Your task to perform on an android device: open app "Move to iOS" (install if not already installed) and enter user name: "Decca@icloud.com" and password: "reabbreviate" Image 0: 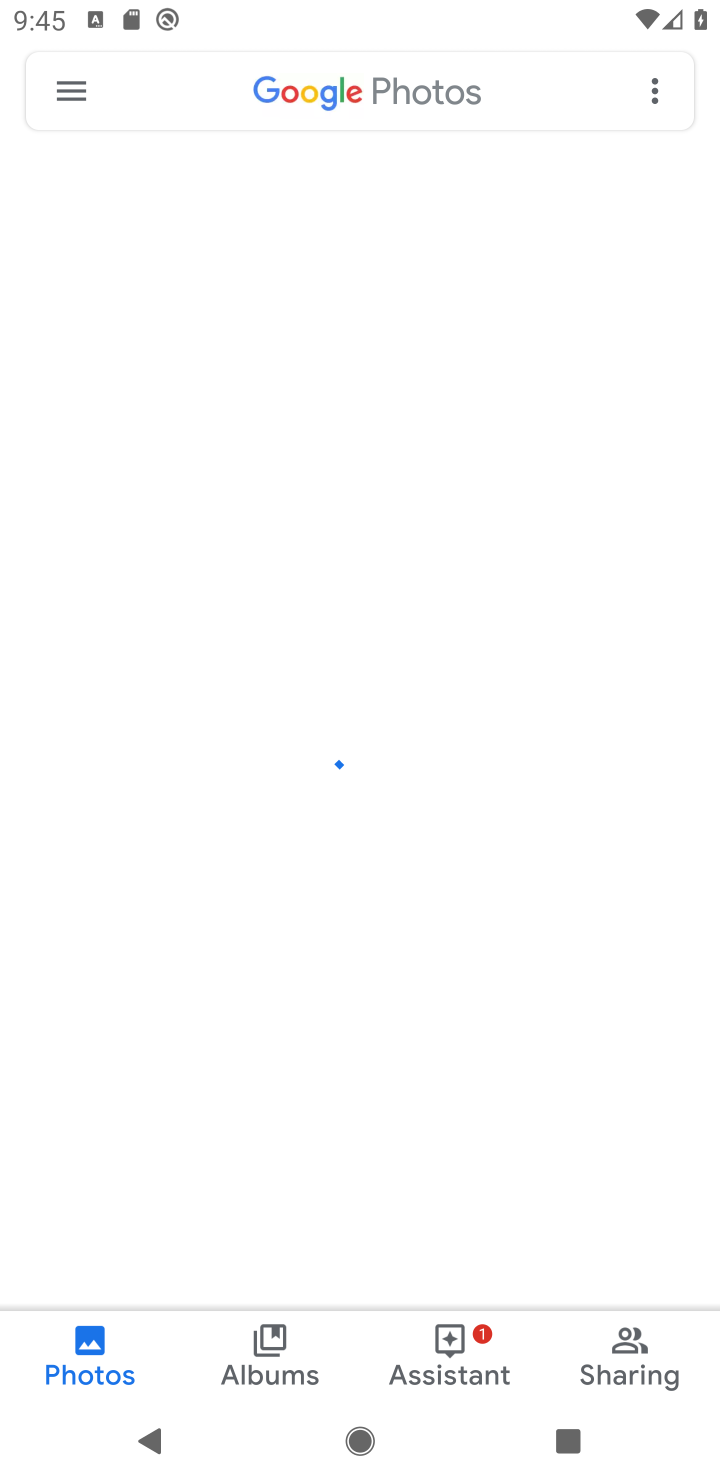
Step 0: press back button
Your task to perform on an android device: open app "Move to iOS" (install if not already installed) and enter user name: "Decca@icloud.com" and password: "reabbreviate" Image 1: 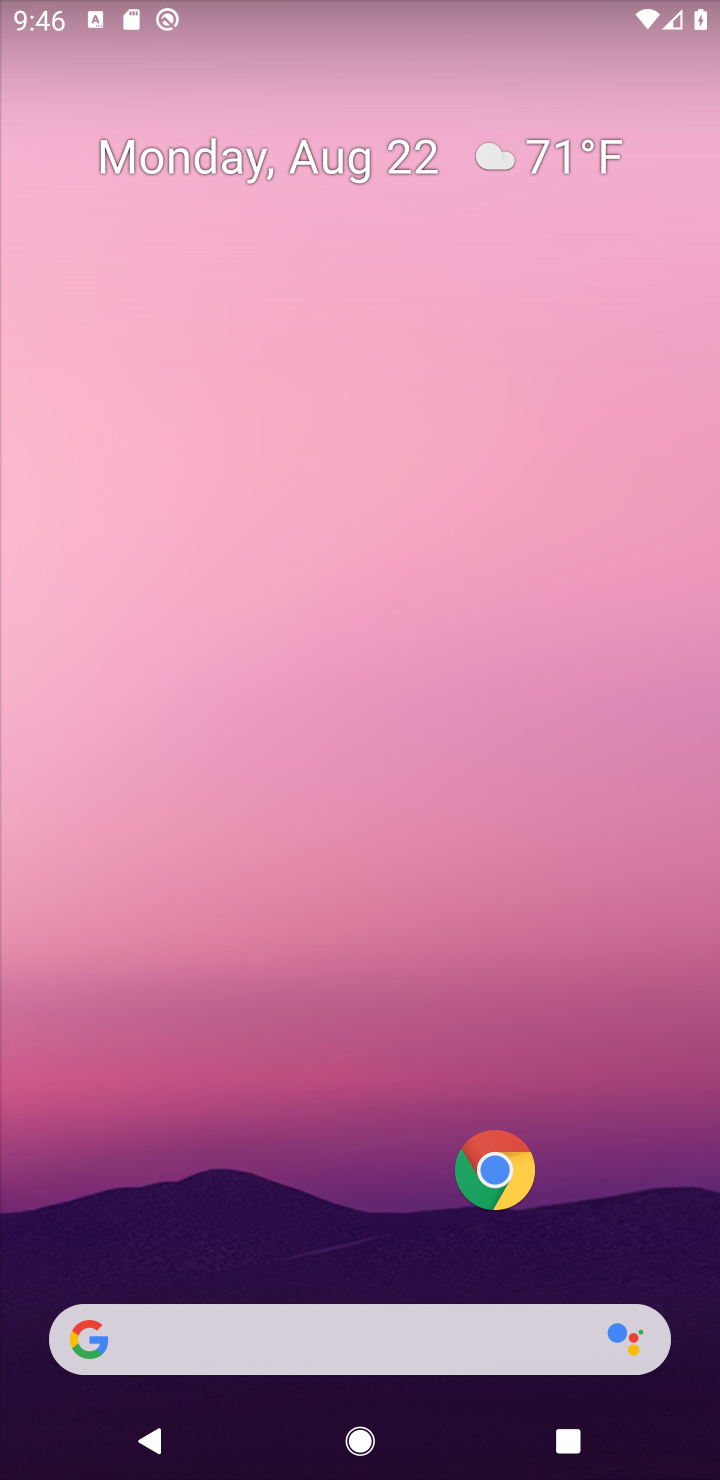
Step 1: drag from (295, 964) to (391, 201)
Your task to perform on an android device: open app "Move to iOS" (install if not already installed) and enter user name: "Decca@icloud.com" and password: "reabbreviate" Image 2: 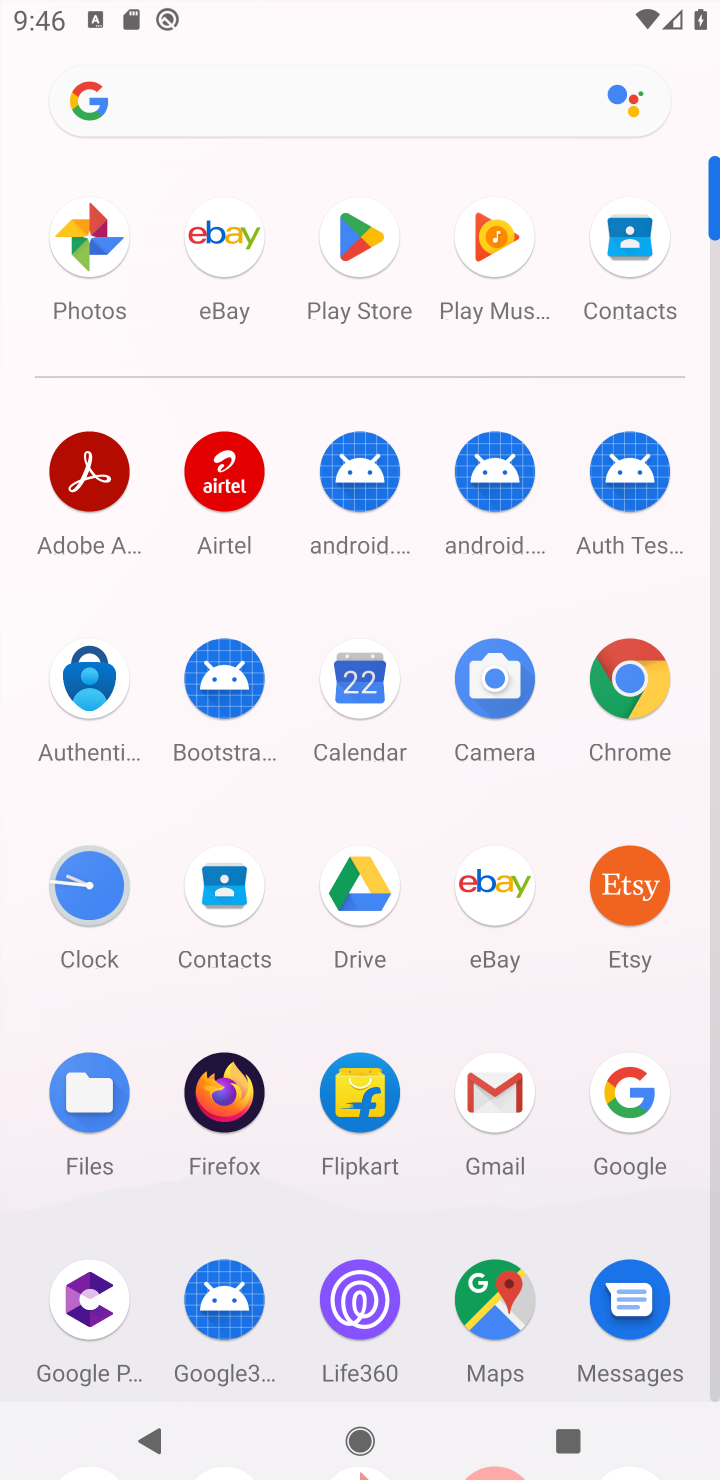
Step 2: click (367, 237)
Your task to perform on an android device: open app "Move to iOS" (install if not already installed) and enter user name: "Decca@icloud.com" and password: "reabbreviate" Image 3: 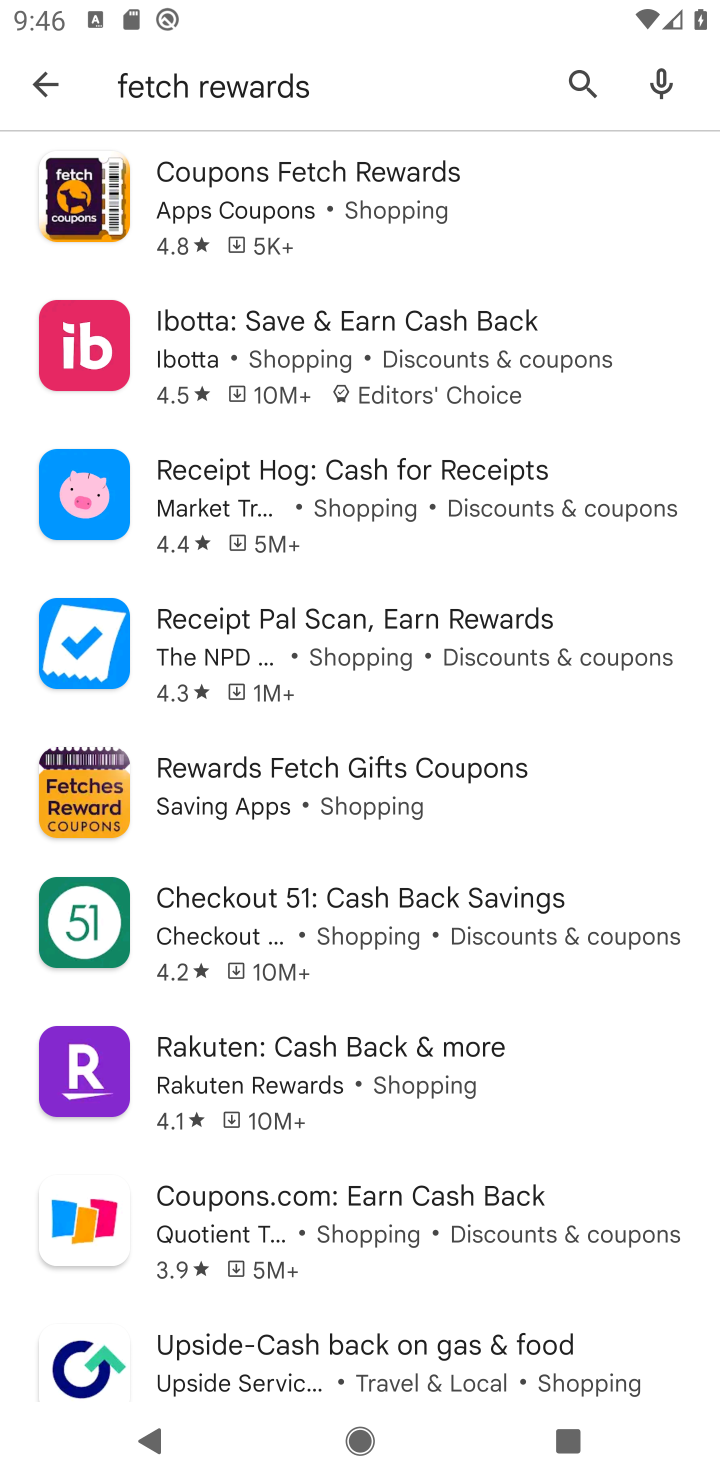
Step 3: click (576, 75)
Your task to perform on an android device: open app "Move to iOS" (install if not already installed) and enter user name: "Decca@icloud.com" and password: "reabbreviate" Image 4: 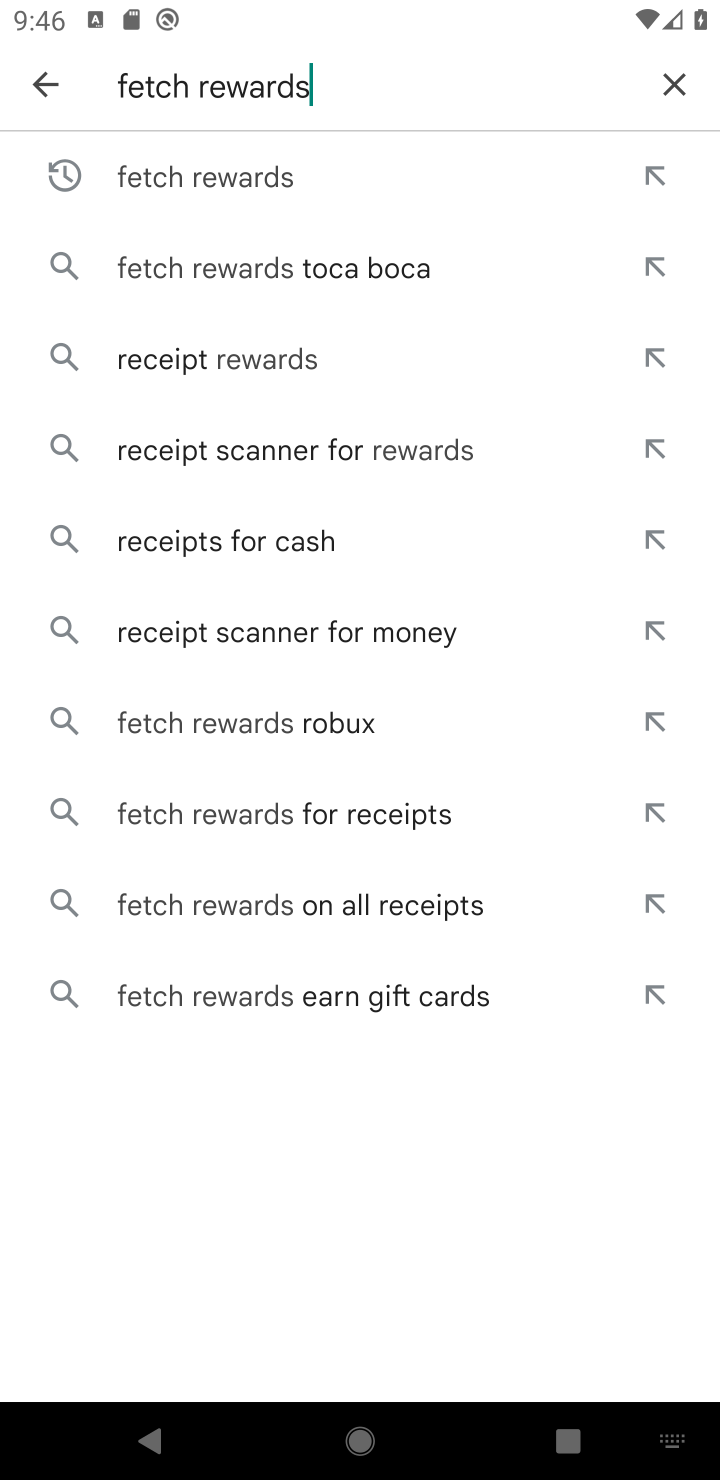
Step 4: click (680, 78)
Your task to perform on an android device: open app "Move to iOS" (install if not already installed) and enter user name: "Decca@icloud.com" and password: "reabbreviate" Image 5: 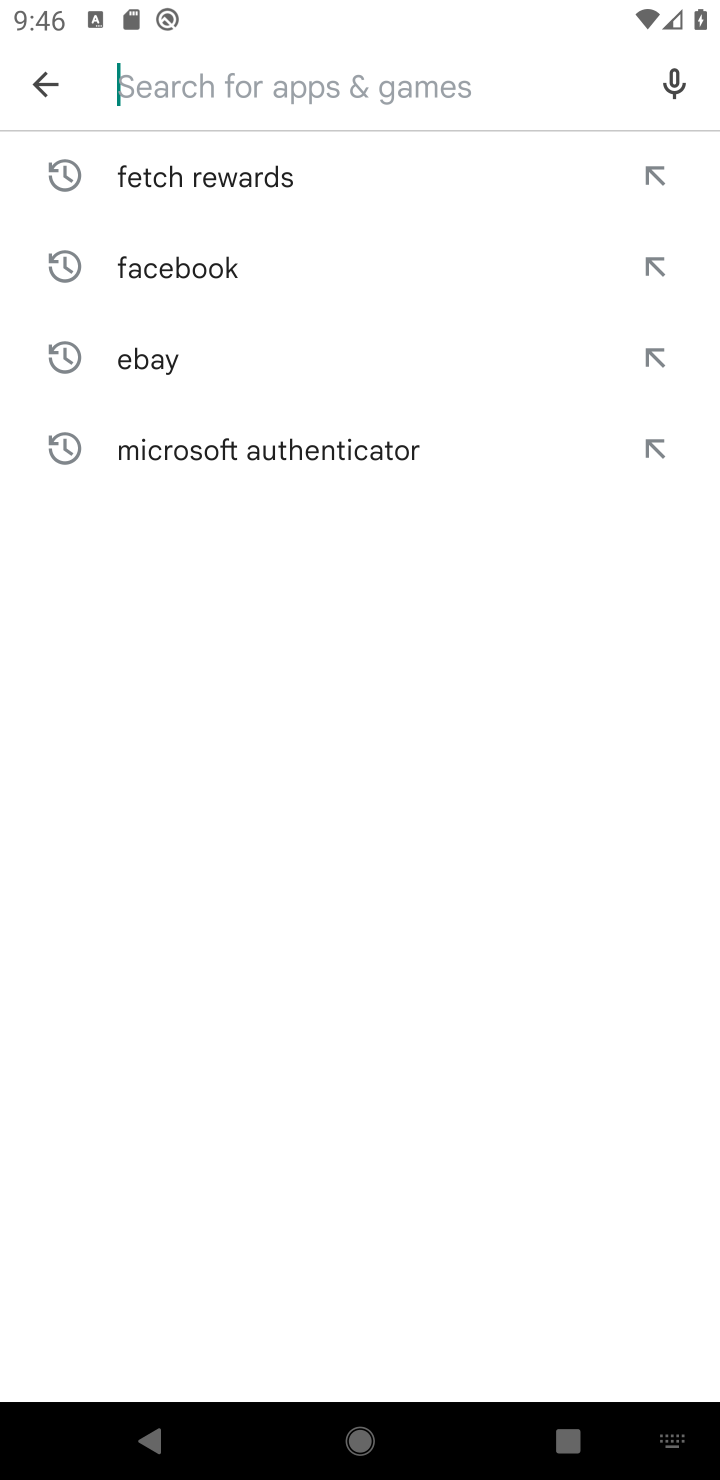
Step 5: click (297, 81)
Your task to perform on an android device: open app "Move to iOS" (install if not already installed) and enter user name: "Decca@icloud.com" and password: "reabbreviate" Image 6: 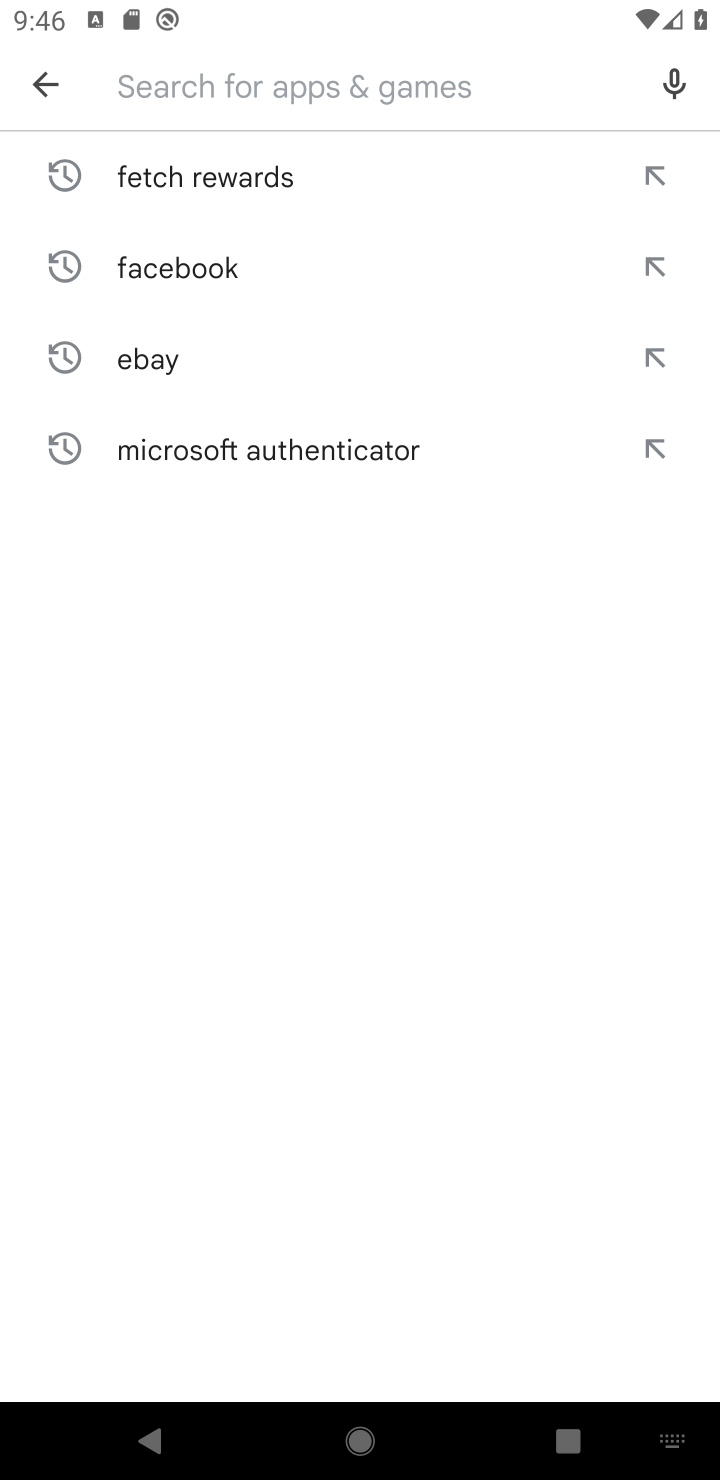
Step 6: type "ios"
Your task to perform on an android device: open app "Move to iOS" (install if not already installed) and enter user name: "Decca@icloud.com" and password: "reabbreviate" Image 7: 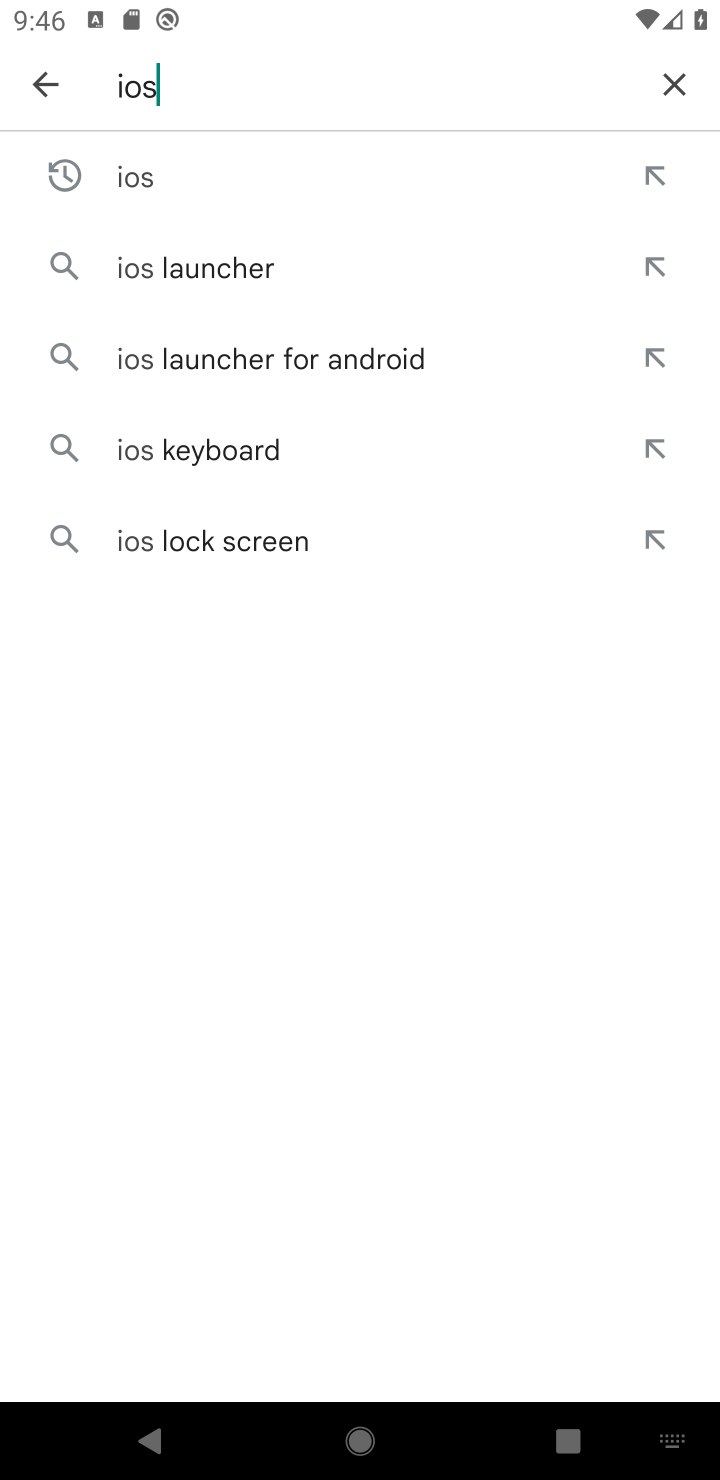
Step 7: click (154, 175)
Your task to perform on an android device: open app "Move to iOS" (install if not already installed) and enter user name: "Decca@icloud.com" and password: "reabbreviate" Image 8: 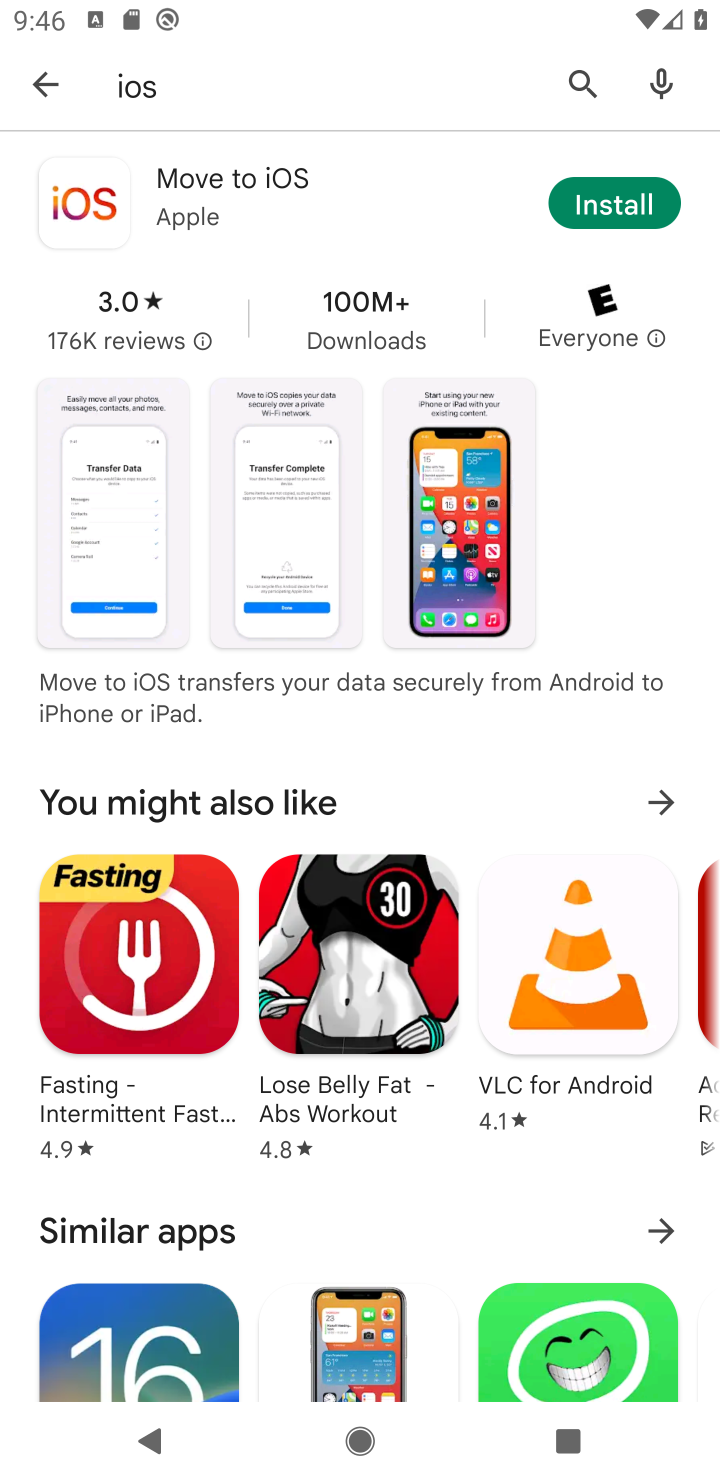
Step 8: click (599, 206)
Your task to perform on an android device: open app "Move to iOS" (install if not already installed) and enter user name: "Decca@icloud.com" and password: "reabbreviate" Image 9: 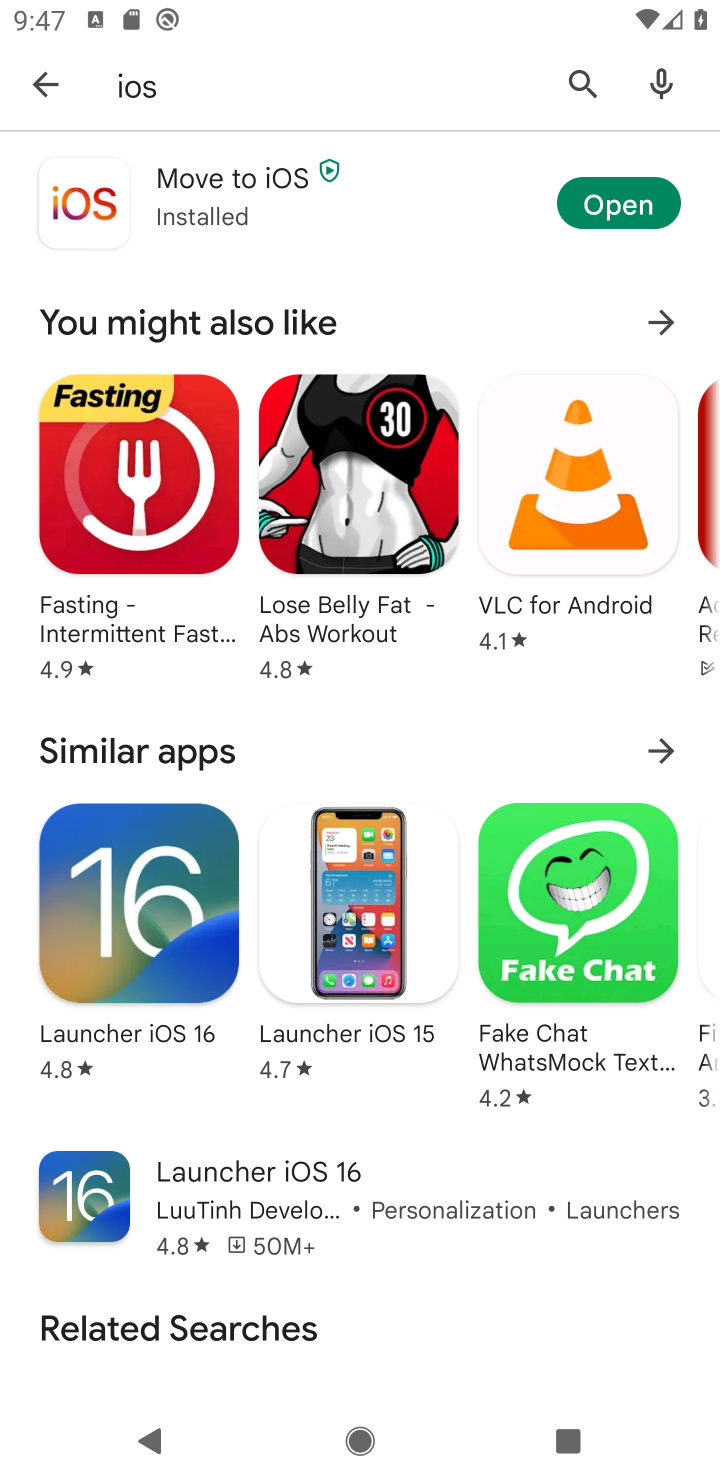
Step 9: click (594, 205)
Your task to perform on an android device: open app "Move to iOS" (install if not already installed) and enter user name: "Decca@icloud.com" and password: "reabbreviate" Image 10: 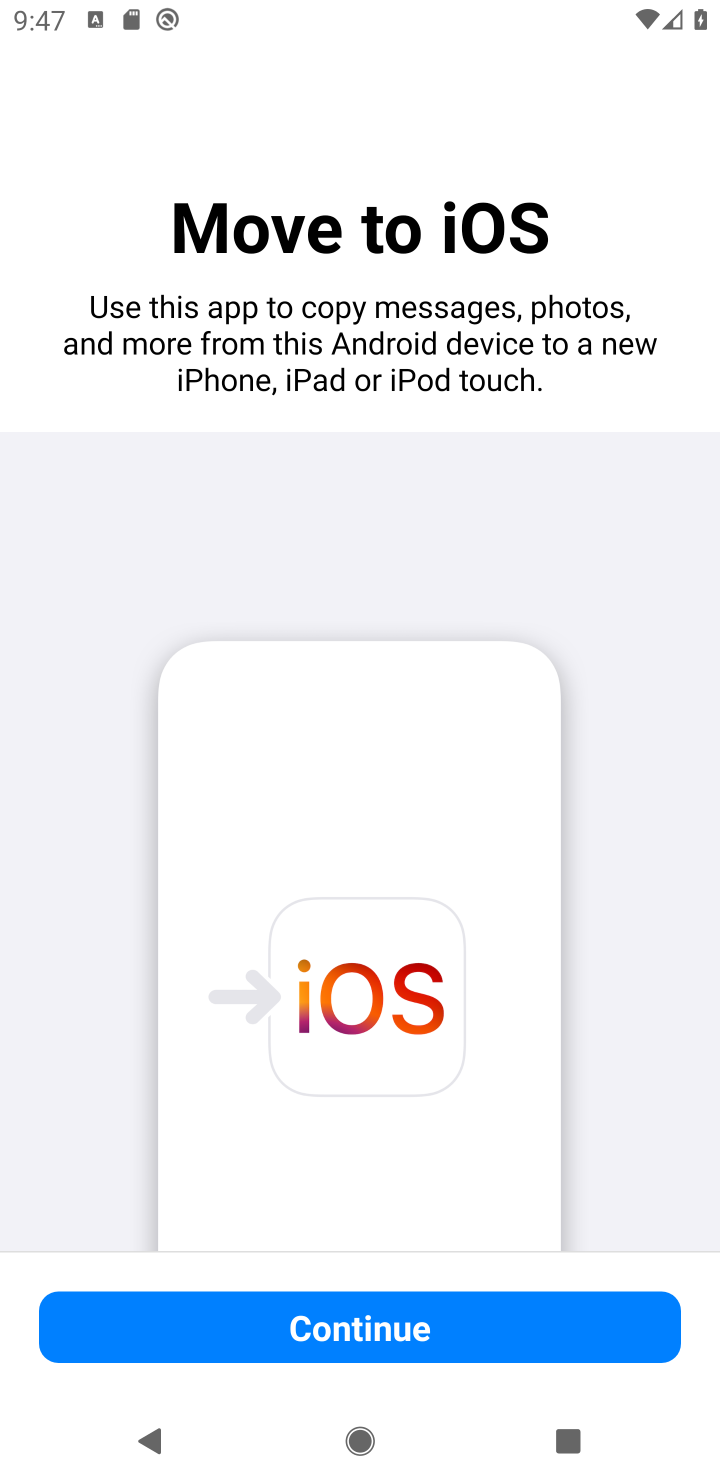
Step 10: click (457, 1347)
Your task to perform on an android device: open app "Move to iOS" (install if not already installed) and enter user name: "Decca@icloud.com" and password: "reabbreviate" Image 11: 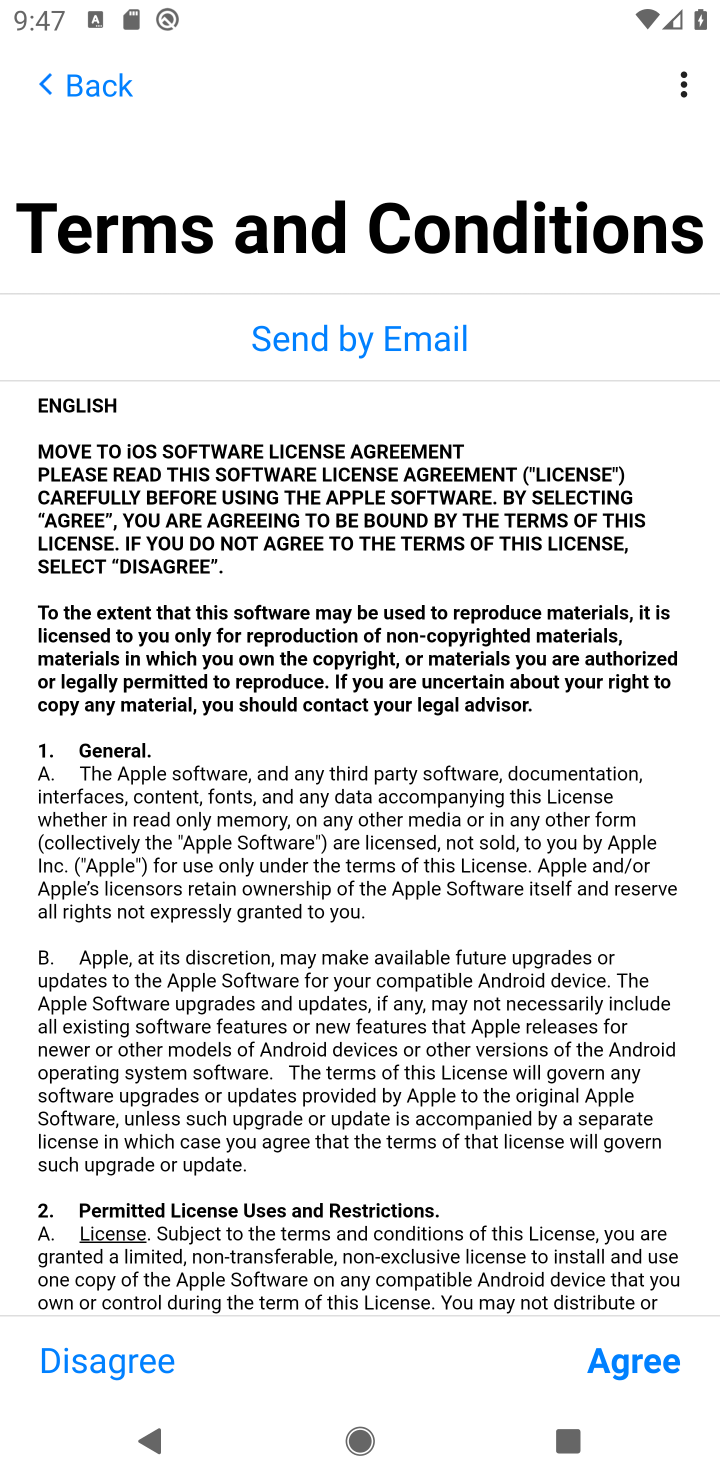
Step 11: click (645, 1369)
Your task to perform on an android device: open app "Move to iOS" (install if not already installed) and enter user name: "Decca@icloud.com" and password: "reabbreviate" Image 12: 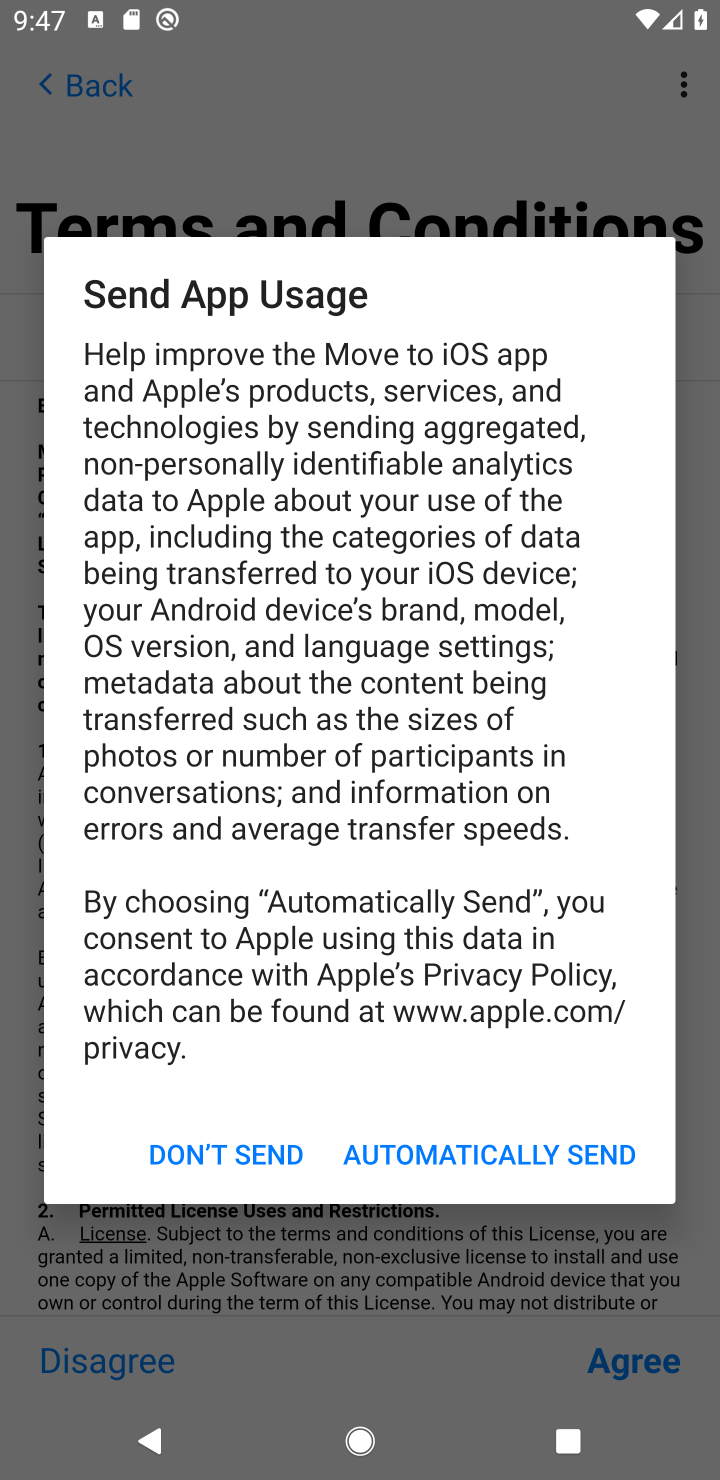
Step 12: click (209, 1156)
Your task to perform on an android device: open app "Move to iOS" (install if not already installed) and enter user name: "Decca@icloud.com" and password: "reabbreviate" Image 13: 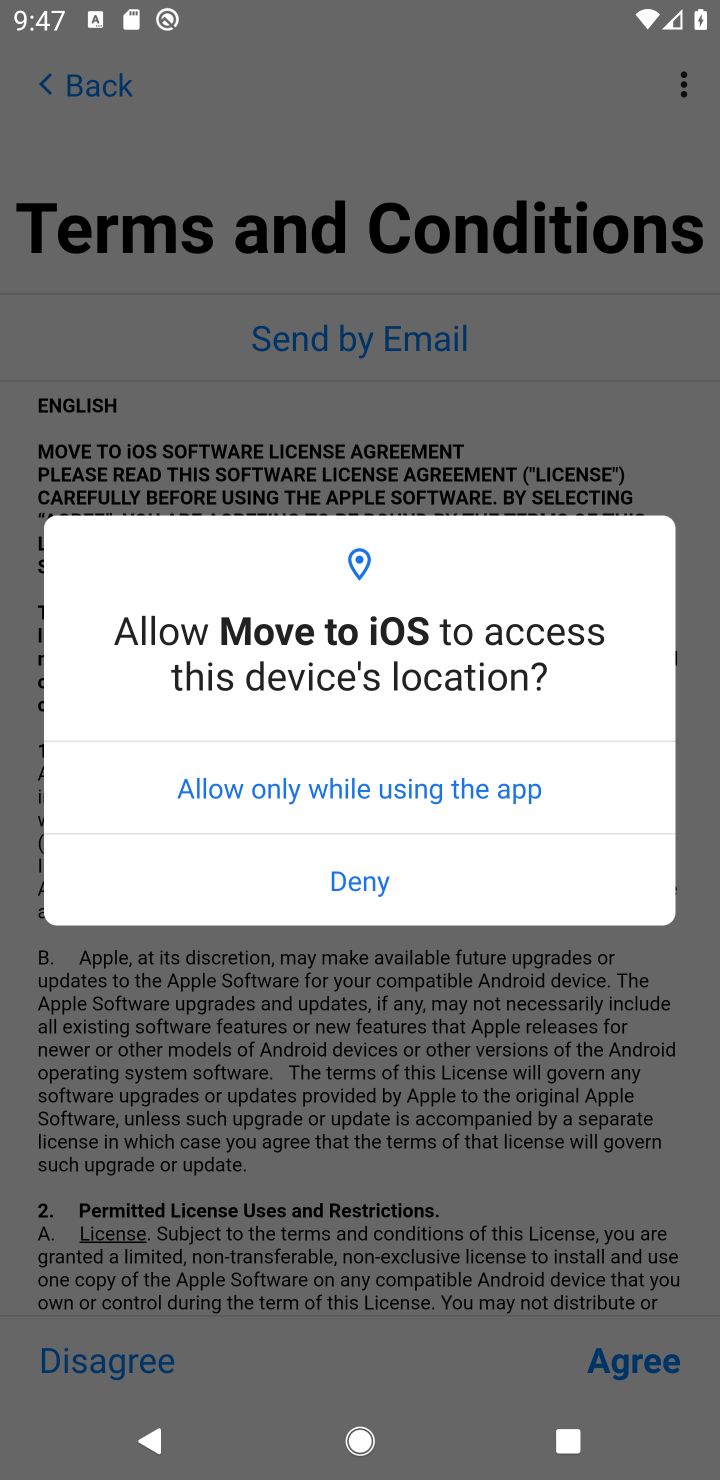
Step 13: click (298, 762)
Your task to perform on an android device: open app "Move to iOS" (install if not already installed) and enter user name: "Decca@icloud.com" and password: "reabbreviate" Image 14: 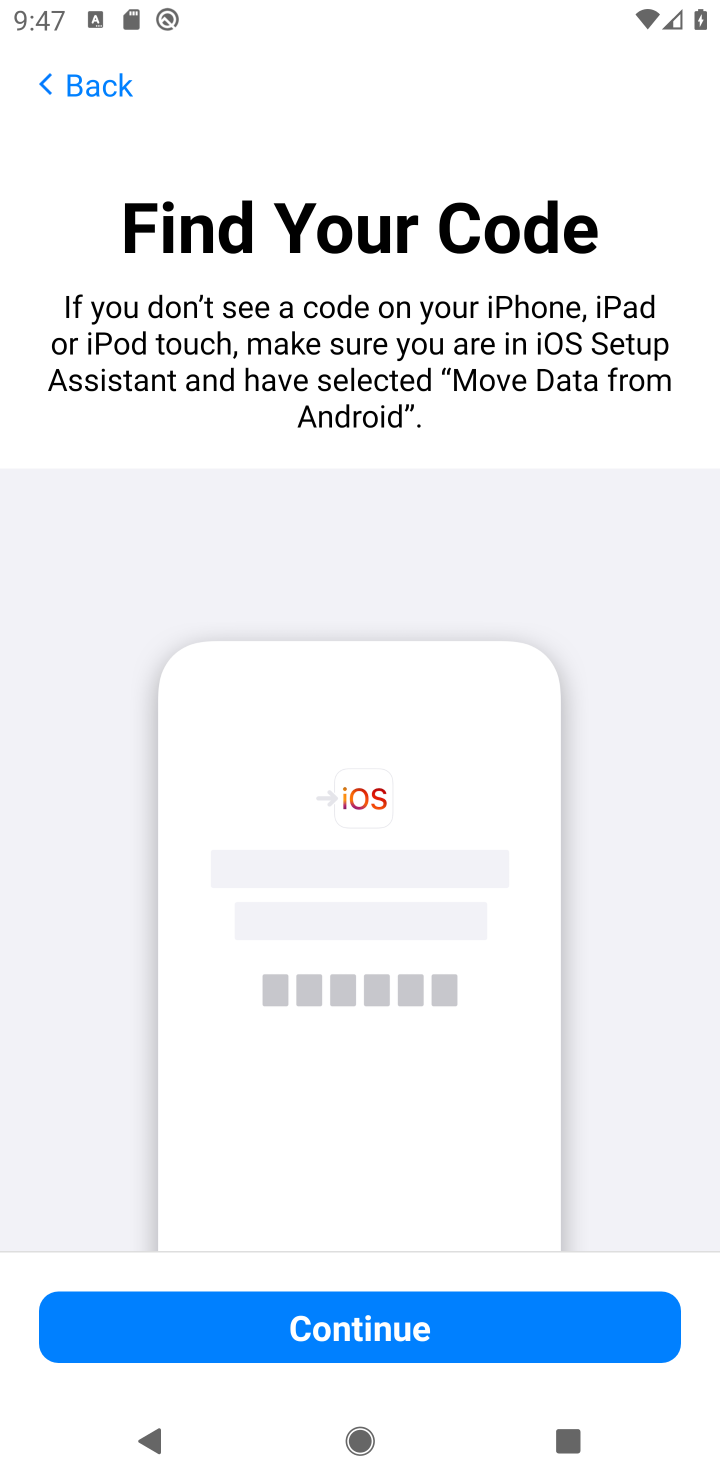
Step 14: click (363, 1319)
Your task to perform on an android device: open app "Move to iOS" (install if not already installed) and enter user name: "Decca@icloud.com" and password: "reabbreviate" Image 15: 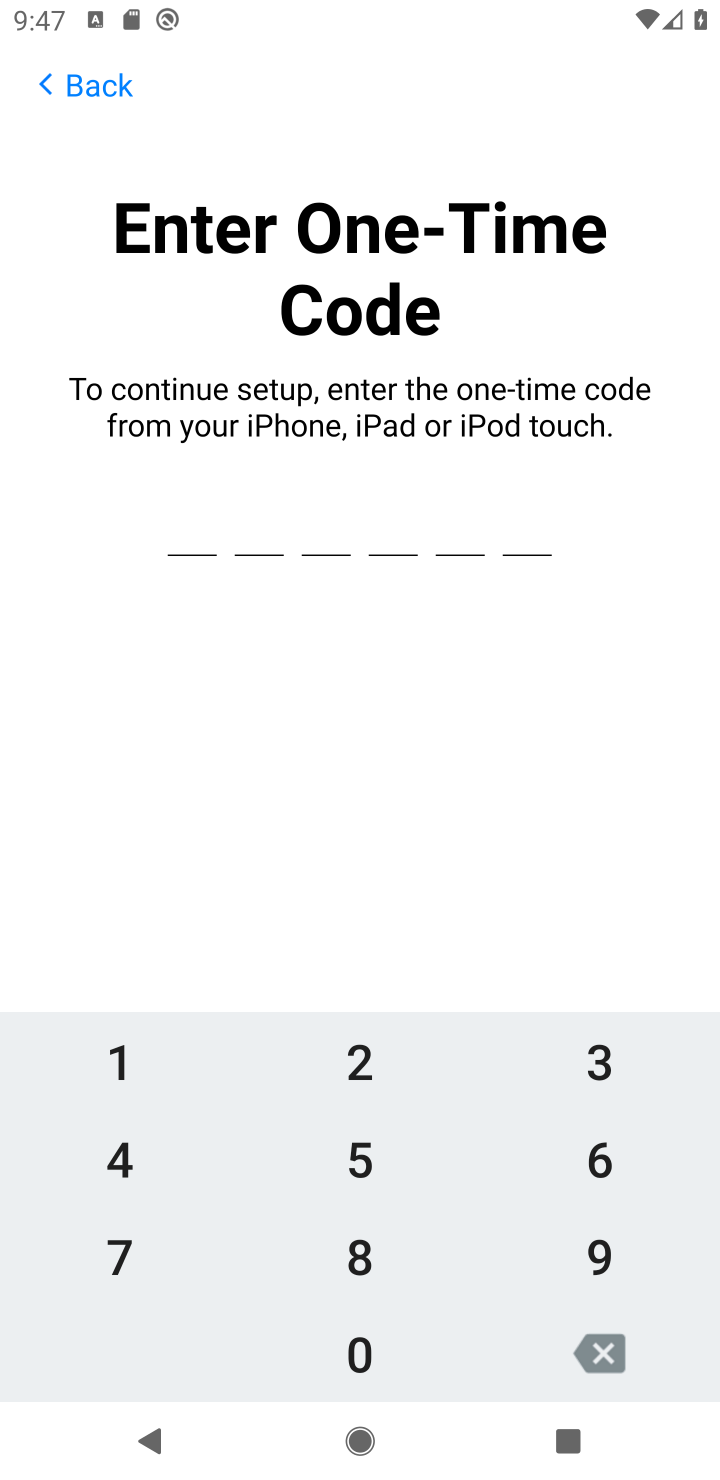
Step 15: task complete